Your task to perform on an android device: turn on the 24-hour format for clock Image 0: 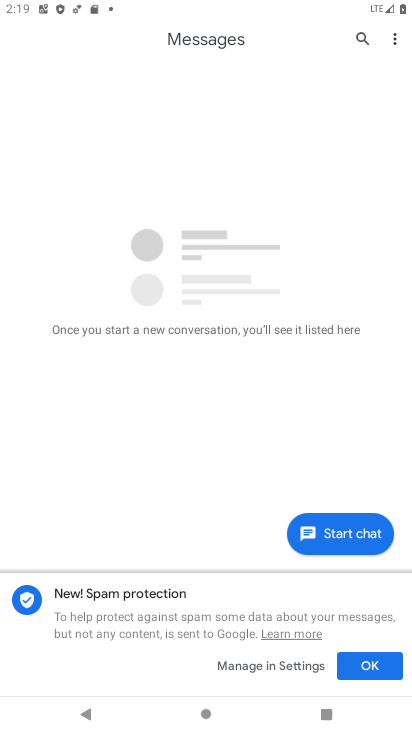
Step 0: press home button
Your task to perform on an android device: turn on the 24-hour format for clock Image 1: 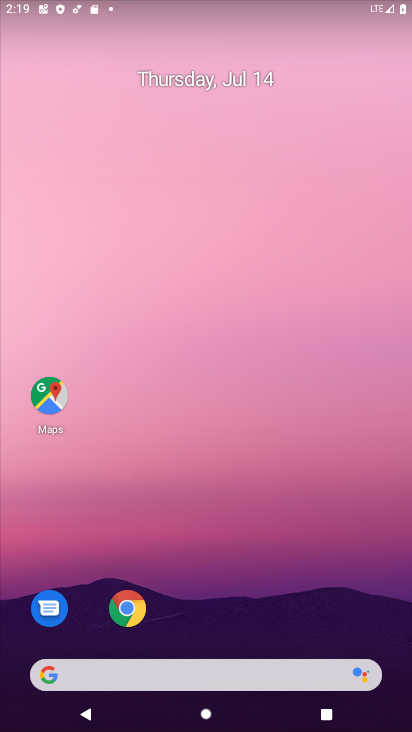
Step 1: drag from (99, 423) to (238, 106)
Your task to perform on an android device: turn on the 24-hour format for clock Image 2: 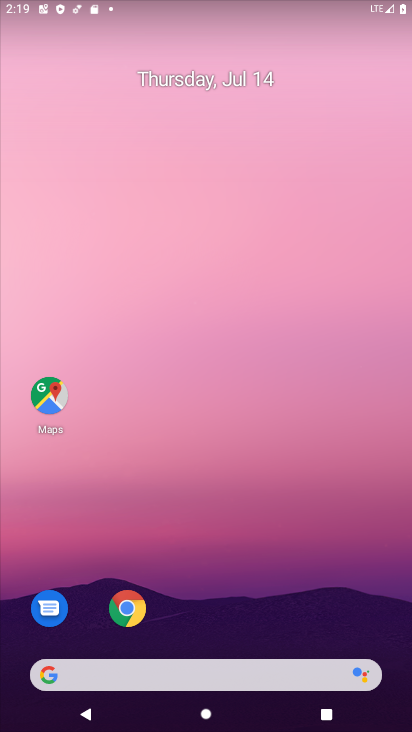
Step 2: drag from (37, 701) to (405, 87)
Your task to perform on an android device: turn on the 24-hour format for clock Image 3: 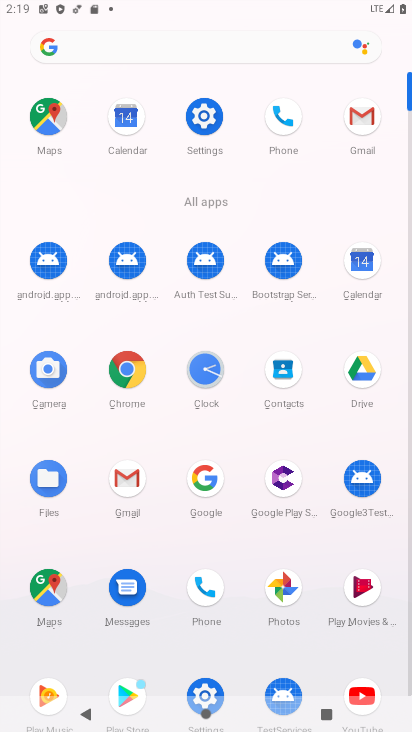
Step 3: click (213, 367)
Your task to perform on an android device: turn on the 24-hour format for clock Image 4: 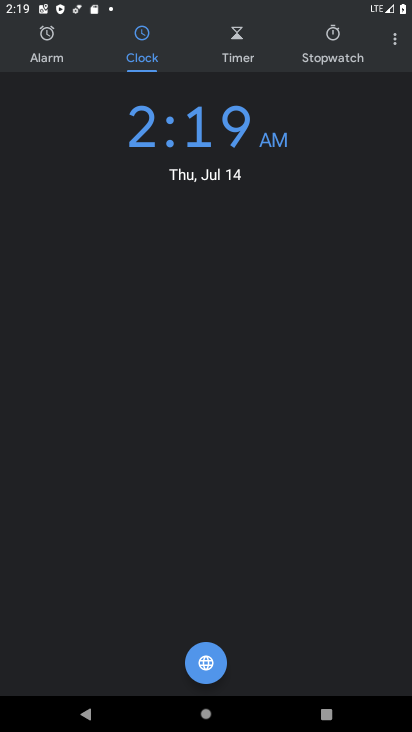
Step 4: click (395, 37)
Your task to perform on an android device: turn on the 24-hour format for clock Image 5: 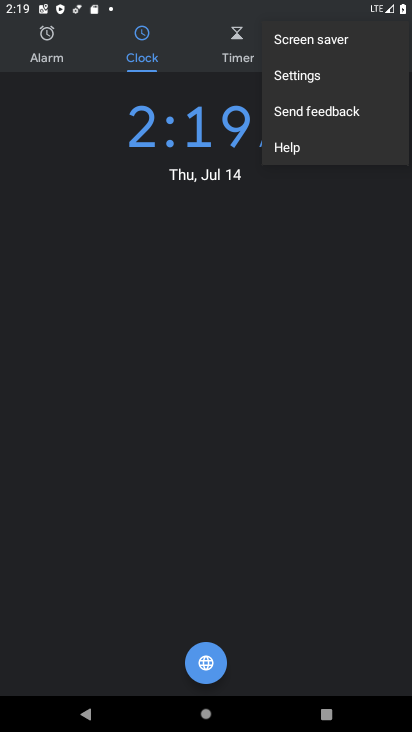
Step 5: click (336, 71)
Your task to perform on an android device: turn on the 24-hour format for clock Image 6: 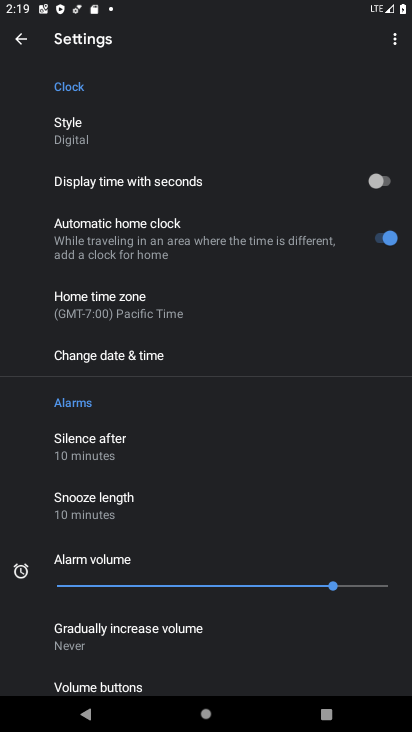
Step 6: click (153, 362)
Your task to perform on an android device: turn on the 24-hour format for clock Image 7: 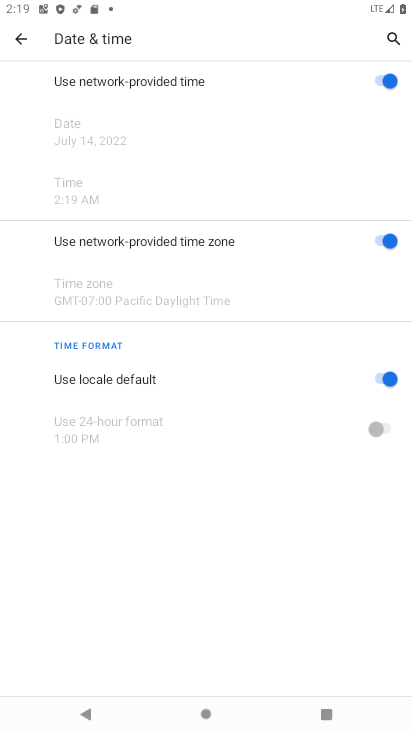
Step 7: click (394, 381)
Your task to perform on an android device: turn on the 24-hour format for clock Image 8: 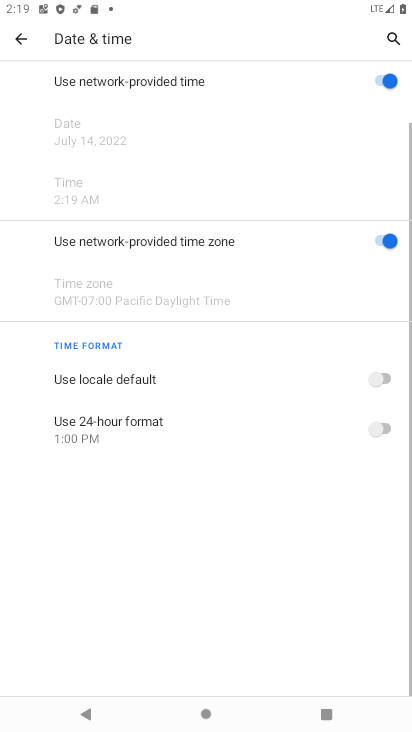
Step 8: click (378, 432)
Your task to perform on an android device: turn on the 24-hour format for clock Image 9: 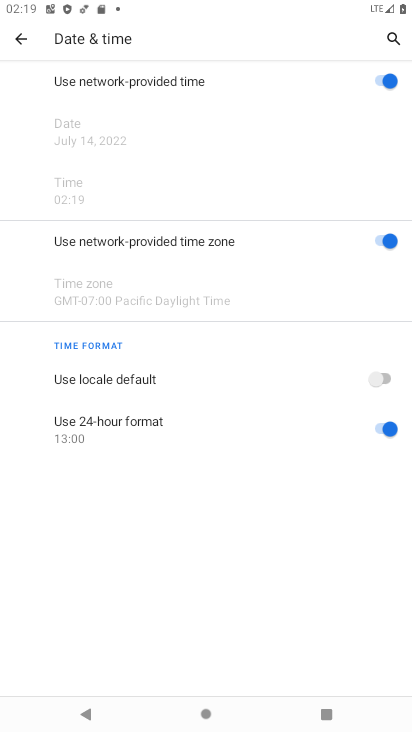
Step 9: task complete